Your task to perform on an android device: check storage Image 0: 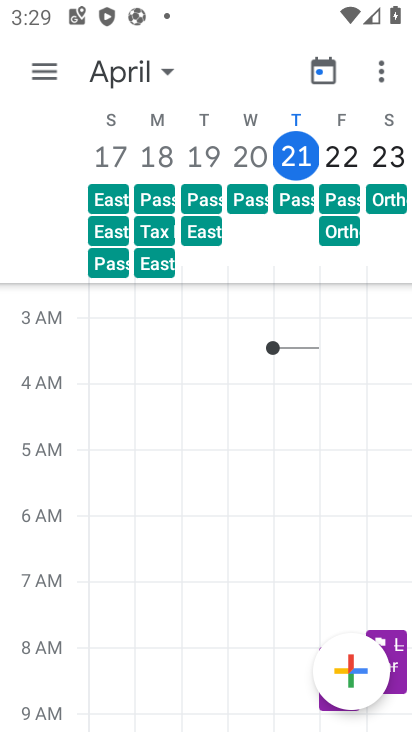
Step 0: press home button
Your task to perform on an android device: check storage Image 1: 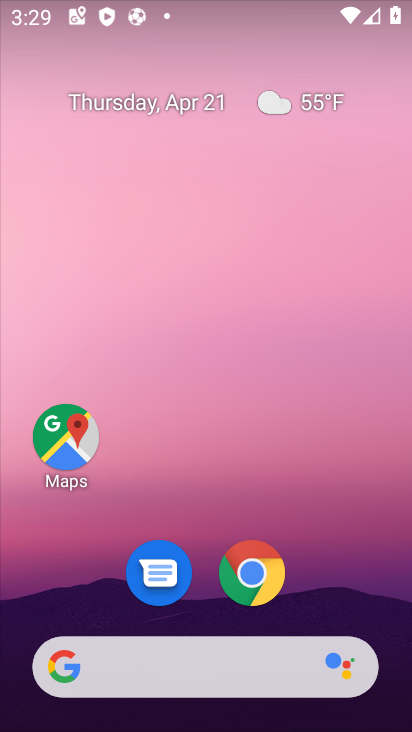
Step 1: drag from (341, 600) to (312, 204)
Your task to perform on an android device: check storage Image 2: 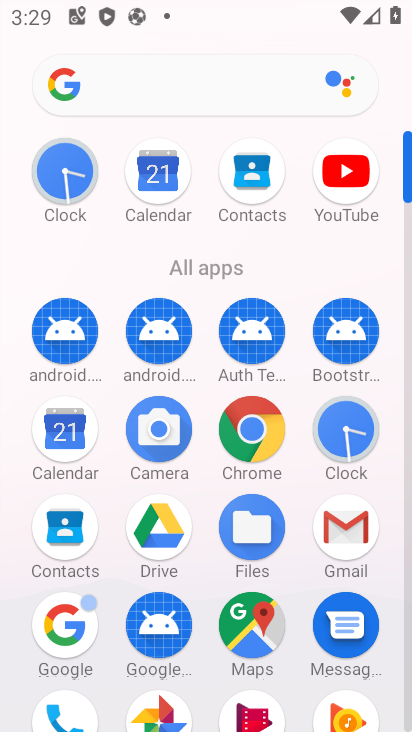
Step 2: click (410, 665)
Your task to perform on an android device: check storage Image 3: 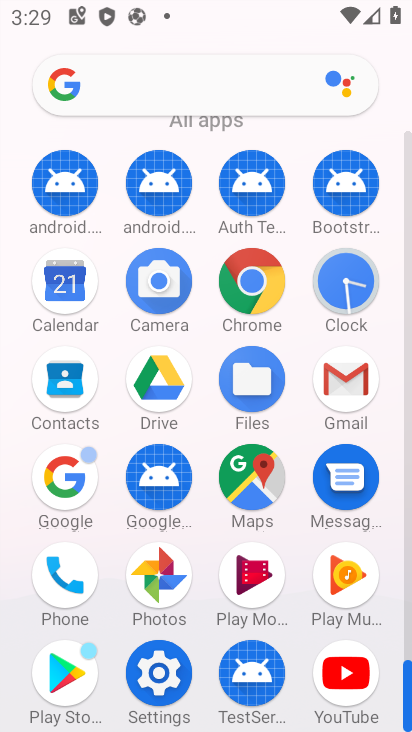
Step 3: click (159, 675)
Your task to perform on an android device: check storage Image 4: 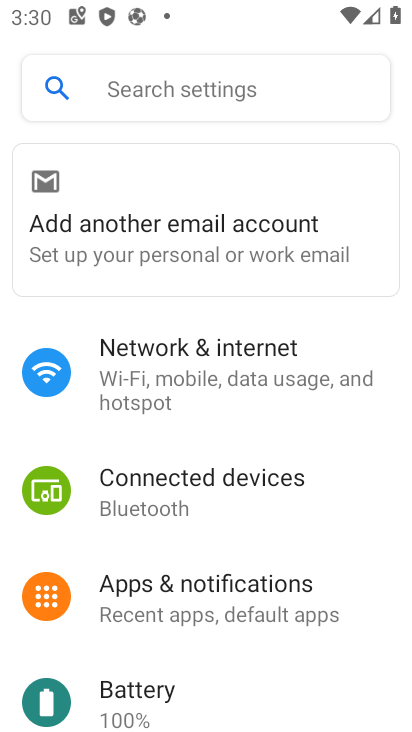
Step 4: drag from (355, 648) to (354, 292)
Your task to perform on an android device: check storage Image 5: 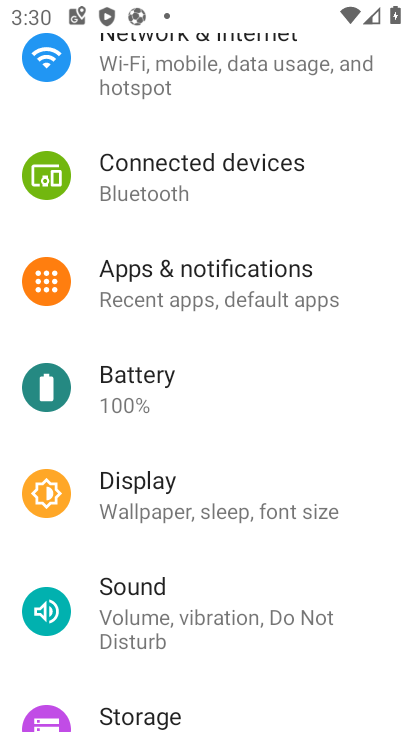
Step 5: drag from (340, 588) to (371, 259)
Your task to perform on an android device: check storage Image 6: 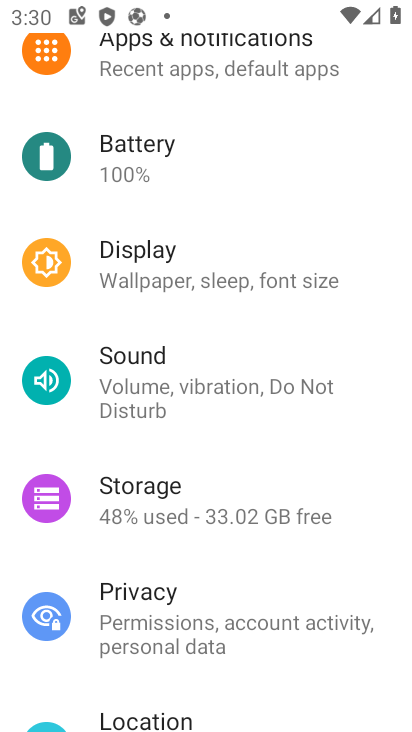
Step 6: click (129, 499)
Your task to perform on an android device: check storage Image 7: 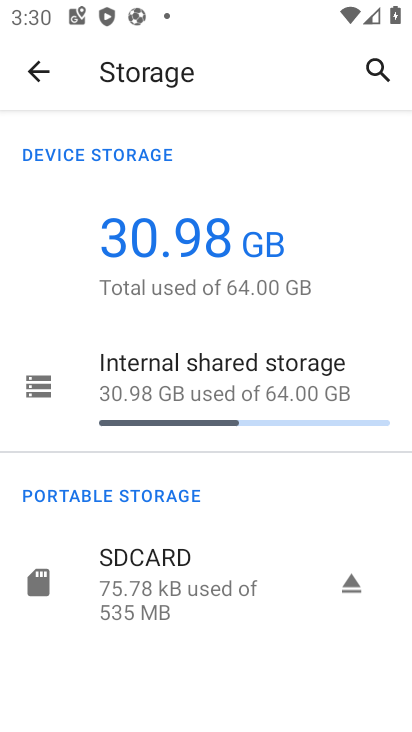
Step 7: task complete